Your task to perform on an android device: Go to sound settings Image 0: 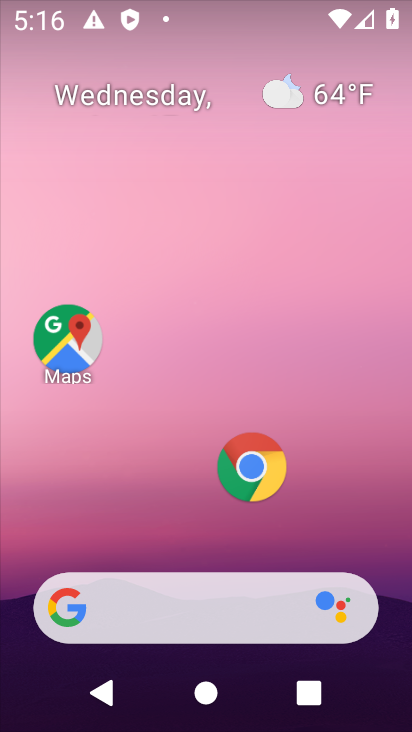
Step 0: drag from (182, 511) to (183, 300)
Your task to perform on an android device: Go to sound settings Image 1: 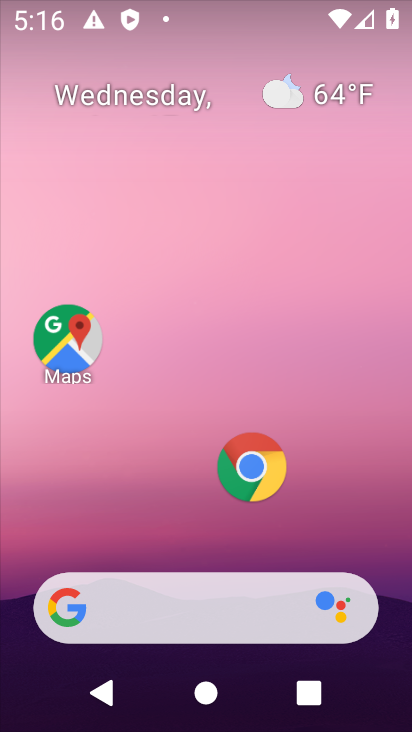
Step 1: drag from (174, 507) to (170, 141)
Your task to perform on an android device: Go to sound settings Image 2: 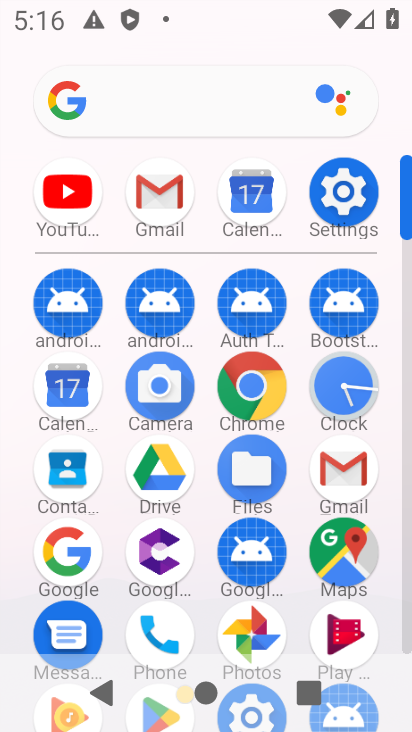
Step 2: click (341, 204)
Your task to perform on an android device: Go to sound settings Image 3: 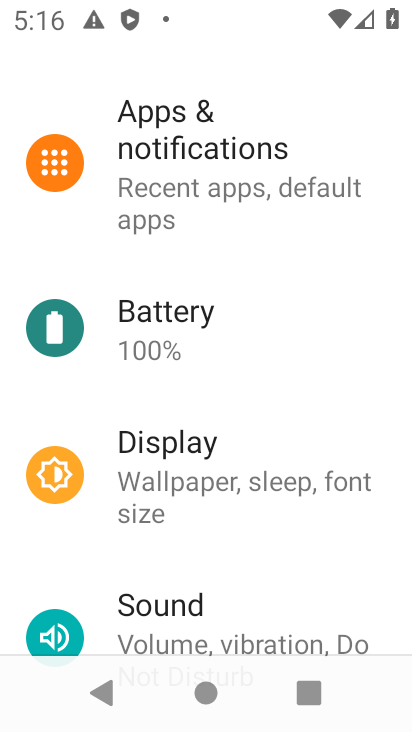
Step 3: click (146, 597)
Your task to perform on an android device: Go to sound settings Image 4: 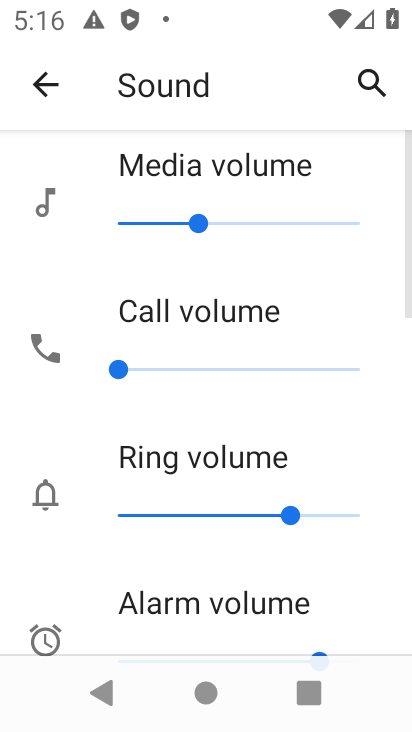
Step 4: task complete